Your task to perform on an android device: Go to battery settings Image 0: 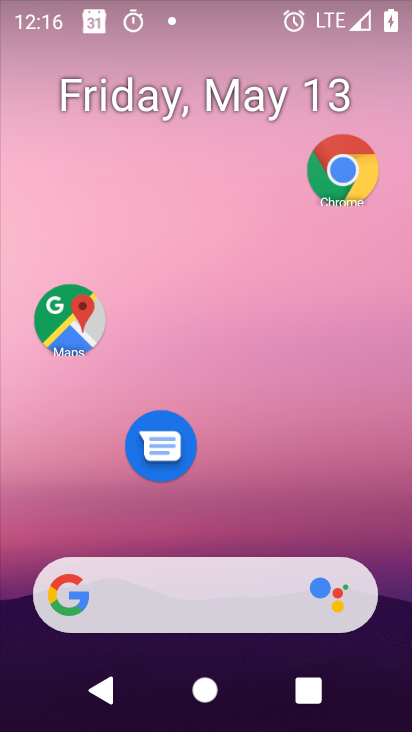
Step 0: drag from (323, 593) to (325, 12)
Your task to perform on an android device: Go to battery settings Image 1: 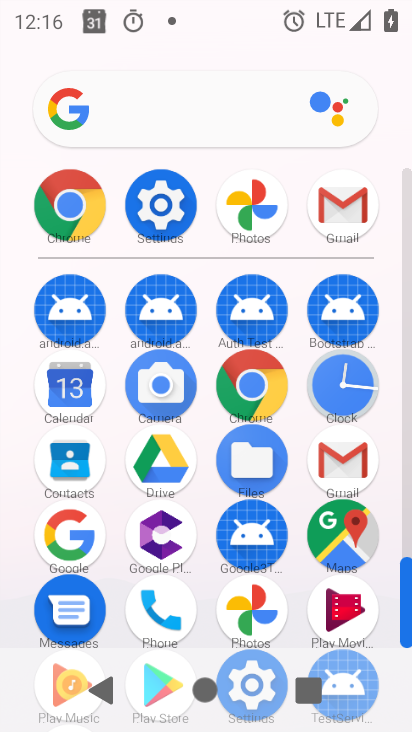
Step 1: click (132, 209)
Your task to perform on an android device: Go to battery settings Image 2: 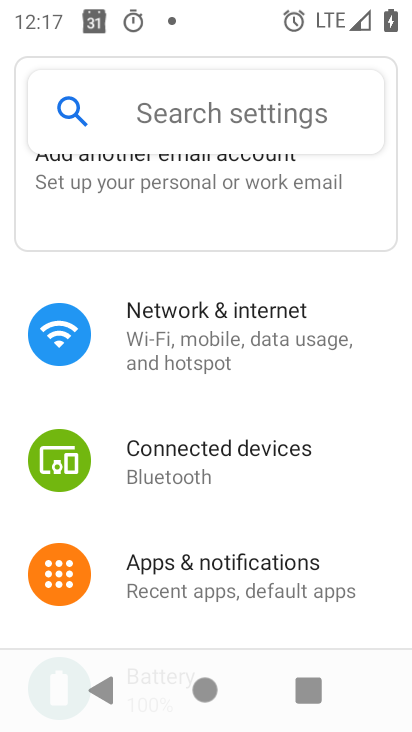
Step 2: drag from (191, 598) to (227, 42)
Your task to perform on an android device: Go to battery settings Image 3: 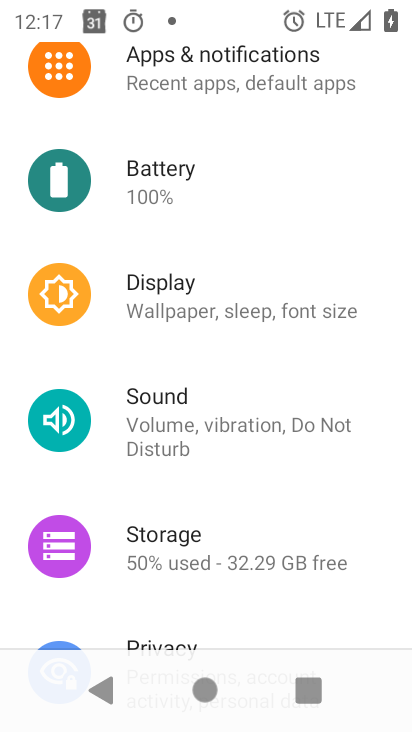
Step 3: click (152, 202)
Your task to perform on an android device: Go to battery settings Image 4: 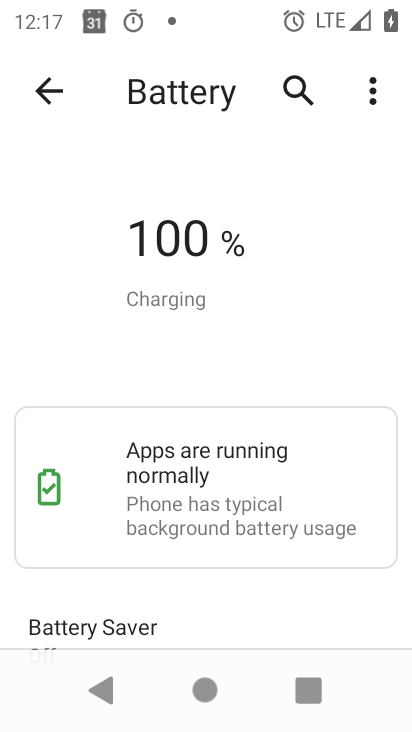
Step 4: task complete